Your task to perform on an android device: toggle airplane mode Image 0: 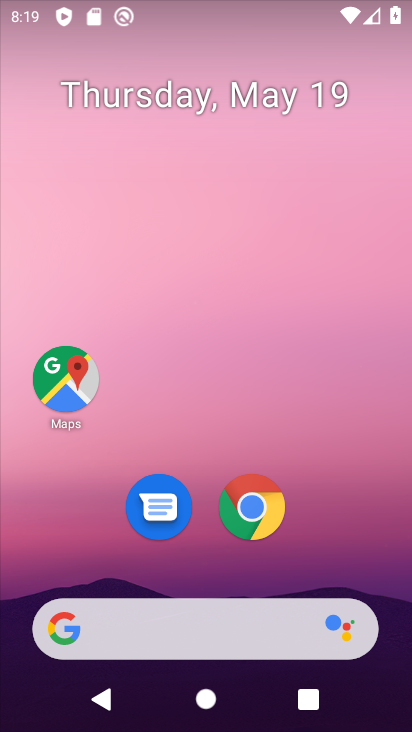
Step 0: drag from (235, 671) to (210, 310)
Your task to perform on an android device: toggle airplane mode Image 1: 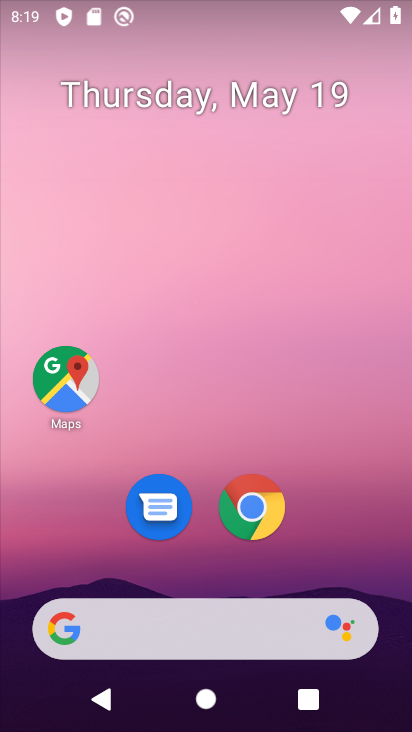
Step 1: drag from (227, 725) to (223, 223)
Your task to perform on an android device: toggle airplane mode Image 2: 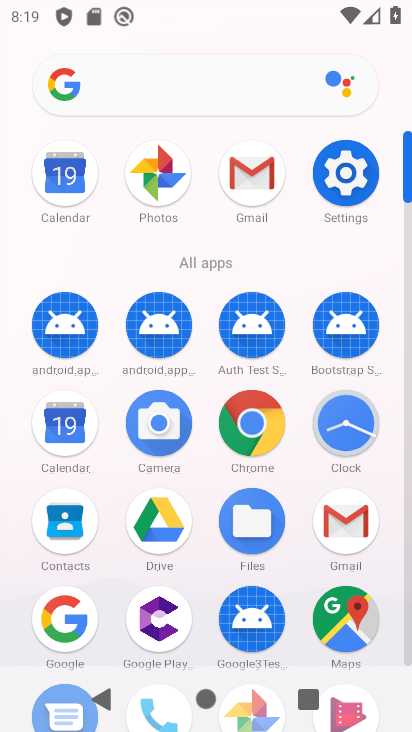
Step 2: click (346, 166)
Your task to perform on an android device: toggle airplane mode Image 3: 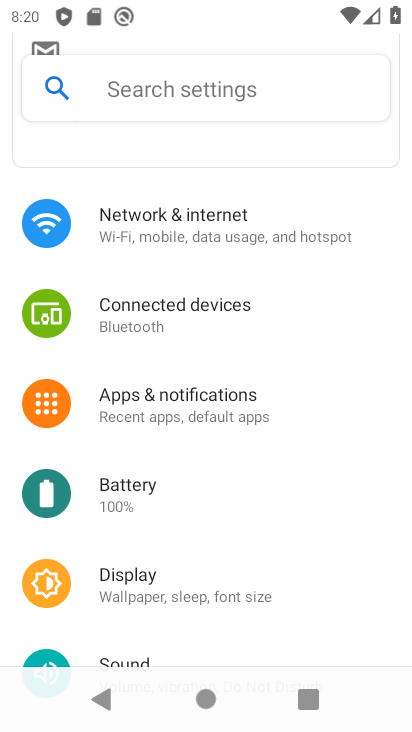
Step 3: click (217, 228)
Your task to perform on an android device: toggle airplane mode Image 4: 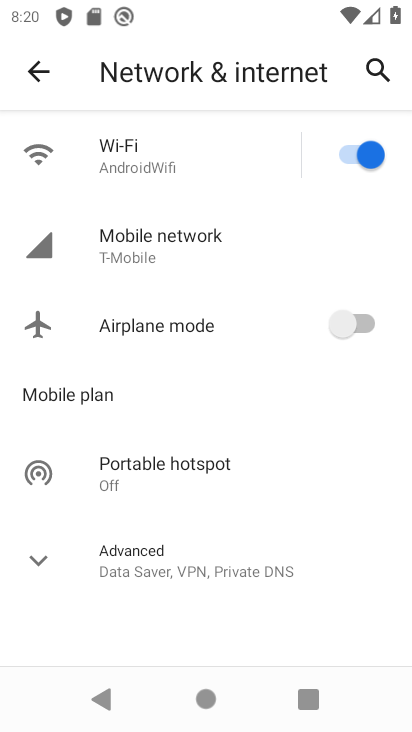
Step 4: click (365, 317)
Your task to perform on an android device: toggle airplane mode Image 5: 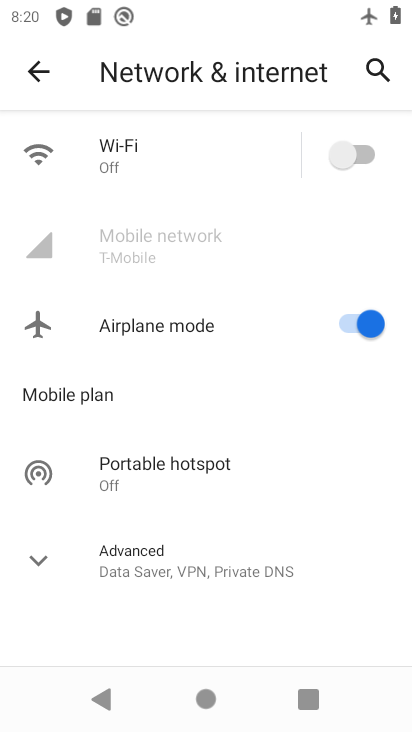
Step 5: task complete